Your task to perform on an android device: Open settings Image 0: 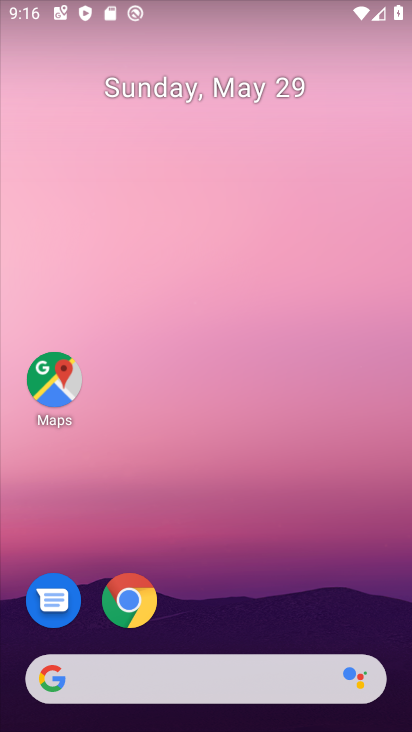
Step 0: drag from (236, 728) to (169, 131)
Your task to perform on an android device: Open settings Image 1: 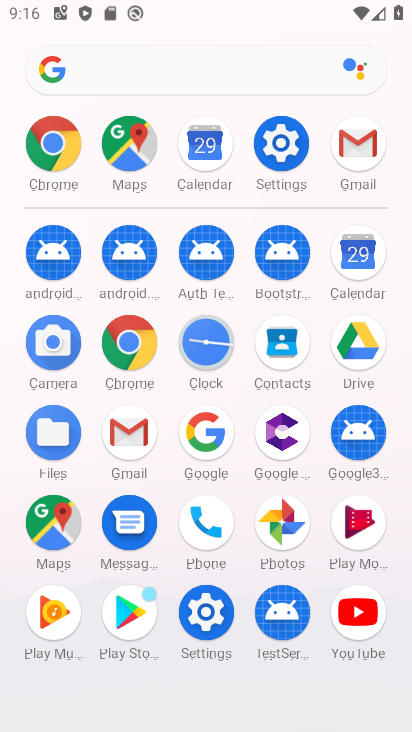
Step 1: click (296, 135)
Your task to perform on an android device: Open settings Image 2: 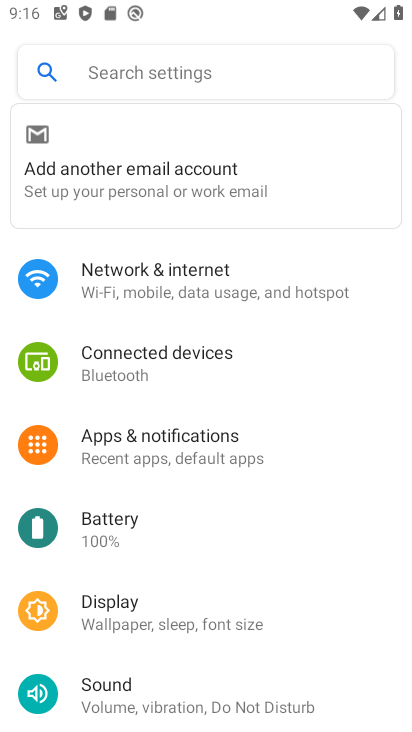
Step 2: task complete